Your task to perform on an android device: Search for pizza restaurants on Maps Image 0: 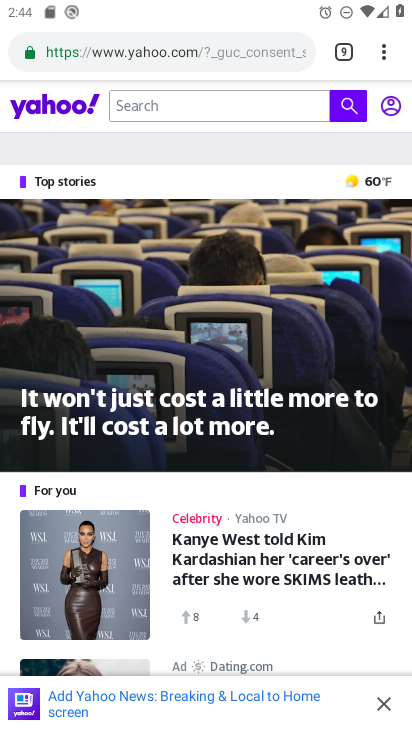
Step 0: press home button
Your task to perform on an android device: Search for pizza restaurants on Maps Image 1: 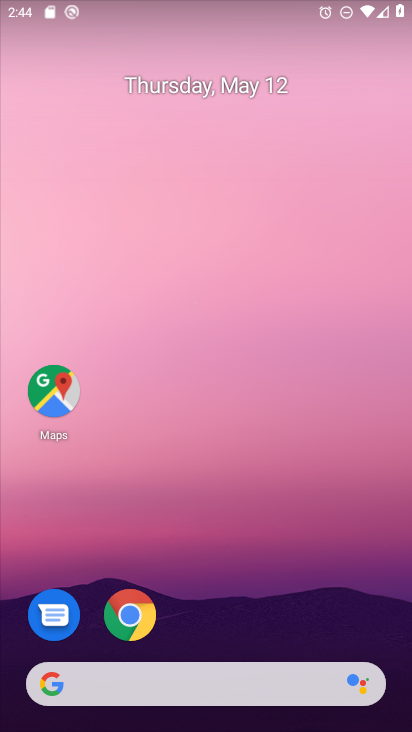
Step 1: drag from (312, 685) to (339, 135)
Your task to perform on an android device: Search for pizza restaurants on Maps Image 2: 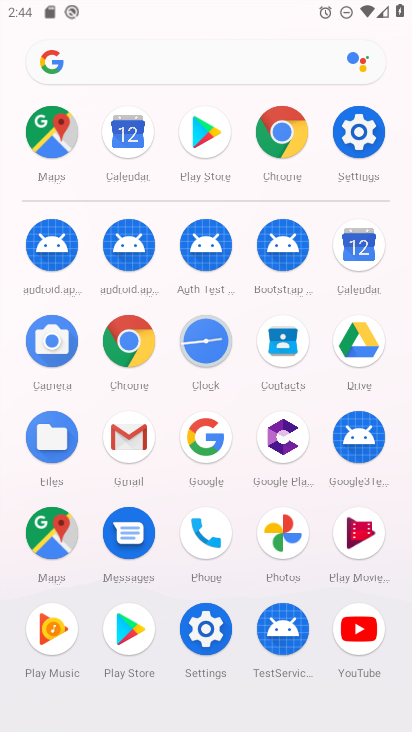
Step 2: click (62, 529)
Your task to perform on an android device: Search for pizza restaurants on Maps Image 3: 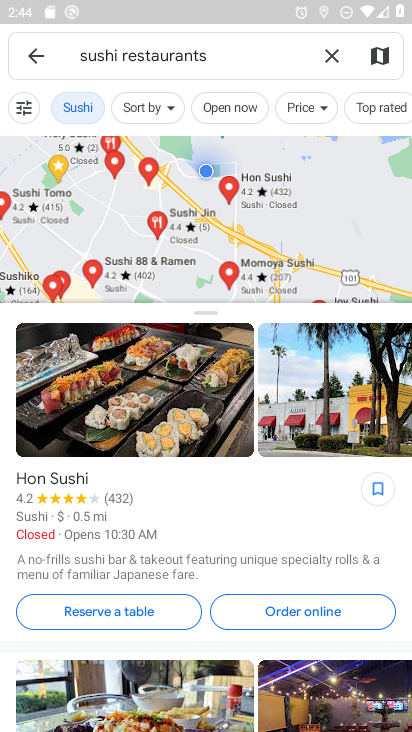
Step 3: click (329, 53)
Your task to perform on an android device: Search for pizza restaurants on Maps Image 4: 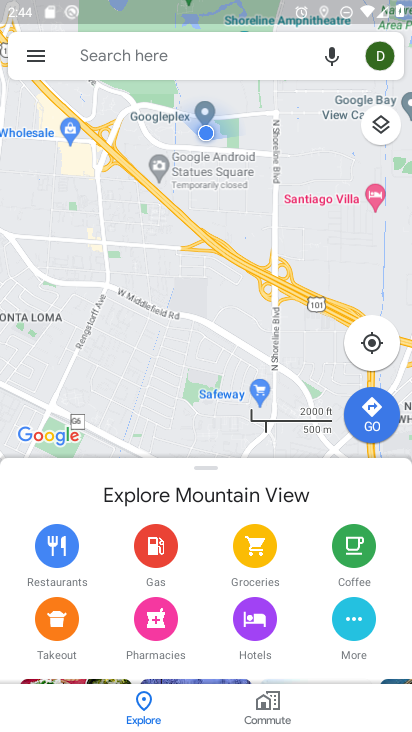
Step 4: click (238, 54)
Your task to perform on an android device: Search for pizza restaurants on Maps Image 5: 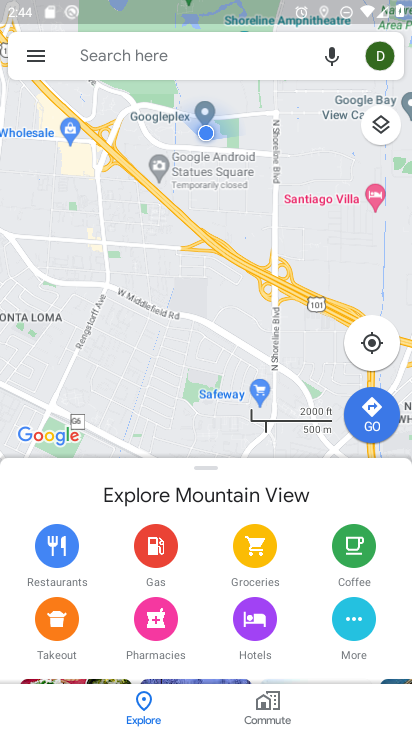
Step 5: click (238, 54)
Your task to perform on an android device: Search for pizza restaurants on Maps Image 6: 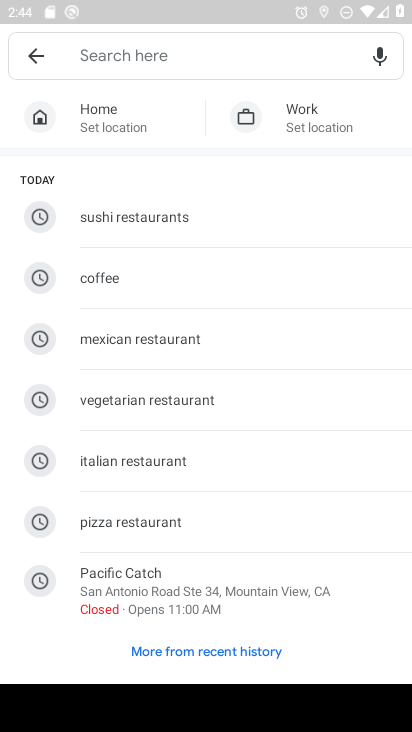
Step 6: type "pizza restaurant"
Your task to perform on an android device: Search for pizza restaurants on Maps Image 7: 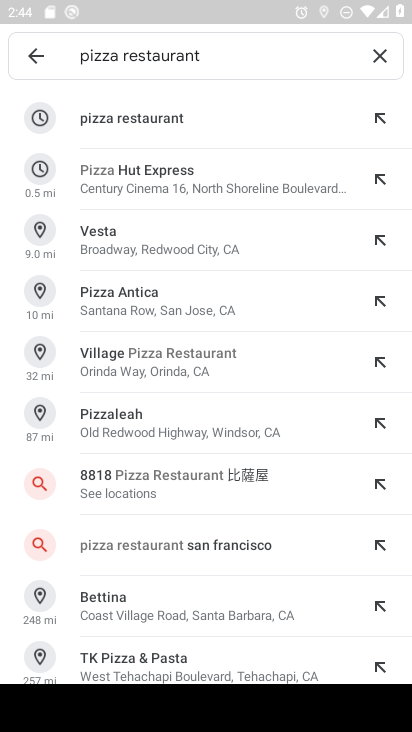
Step 7: click (188, 125)
Your task to perform on an android device: Search for pizza restaurants on Maps Image 8: 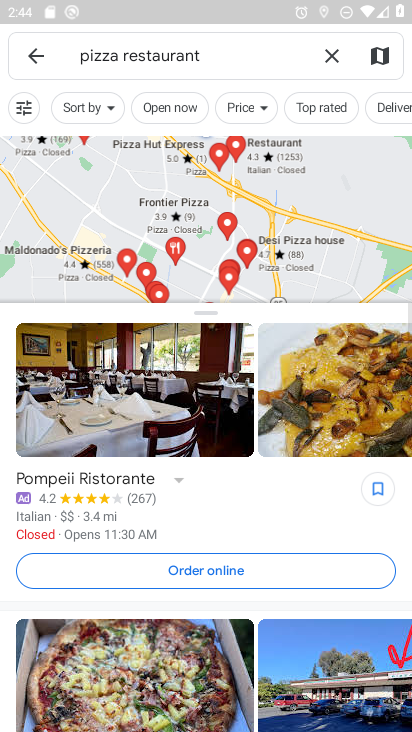
Step 8: task complete